Your task to perform on an android device: add a contact Image 0: 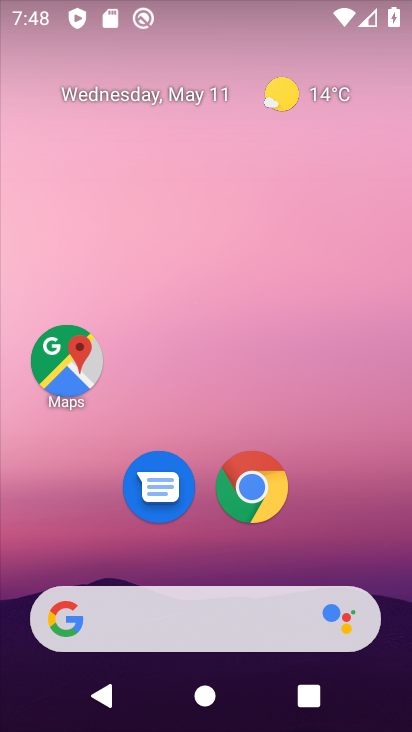
Step 0: drag from (281, 583) to (334, 216)
Your task to perform on an android device: add a contact Image 1: 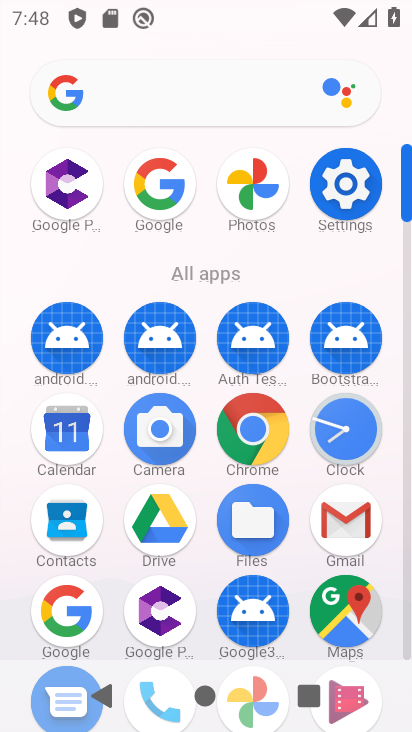
Step 1: click (70, 532)
Your task to perform on an android device: add a contact Image 2: 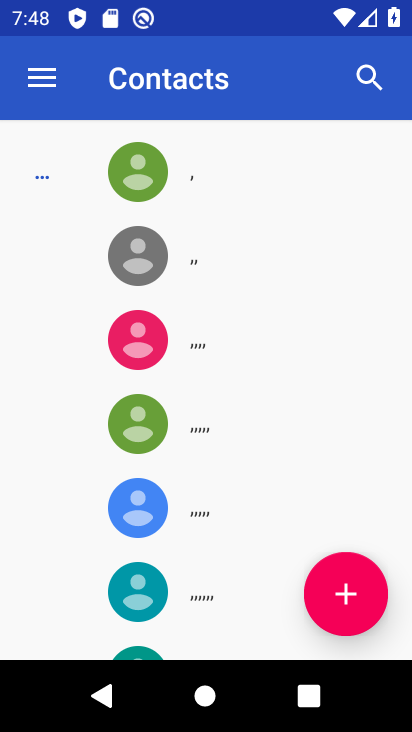
Step 2: click (346, 604)
Your task to perform on an android device: add a contact Image 3: 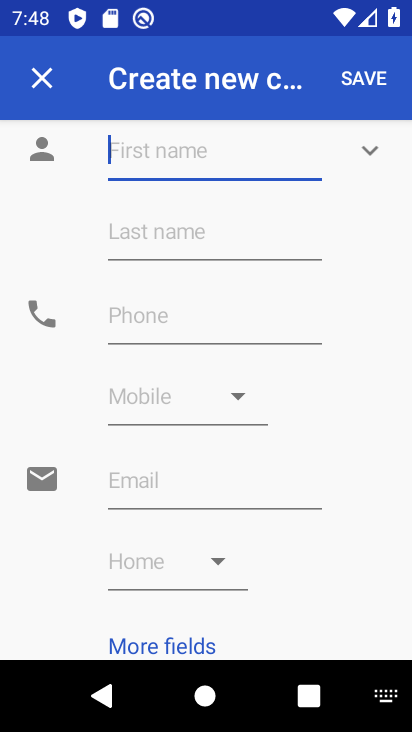
Step 3: click (166, 163)
Your task to perform on an android device: add a contact Image 4: 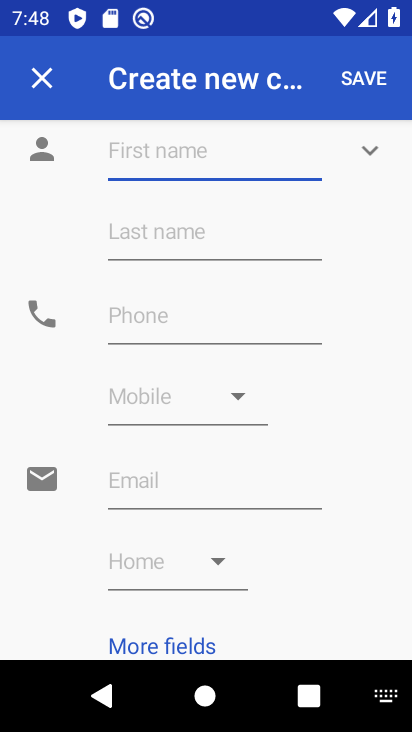
Step 4: type "rajjjjj"
Your task to perform on an android device: add a contact Image 5: 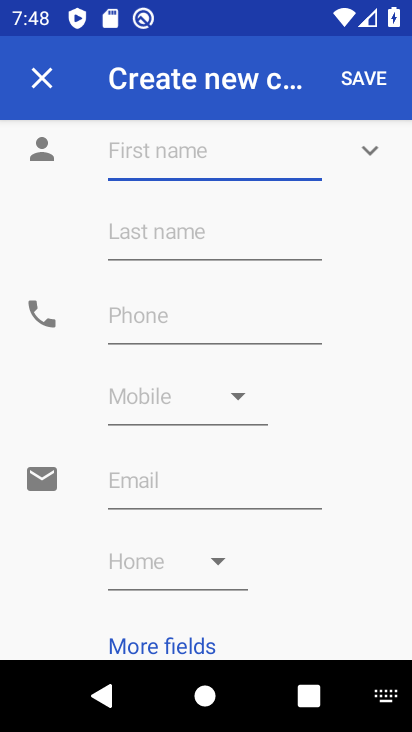
Step 5: click (203, 244)
Your task to perform on an android device: add a contact Image 6: 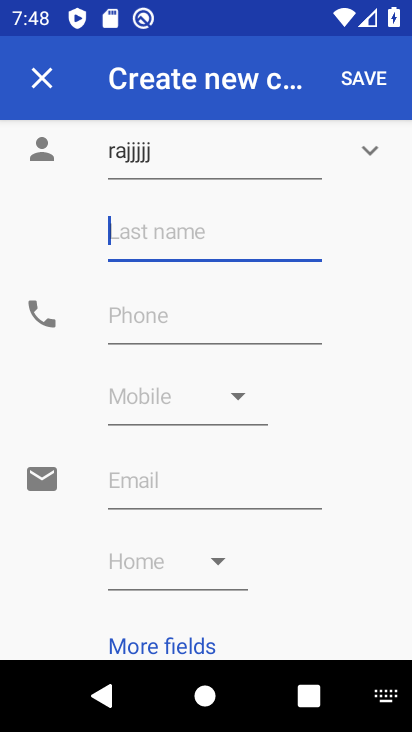
Step 6: click (203, 234)
Your task to perform on an android device: add a contact Image 7: 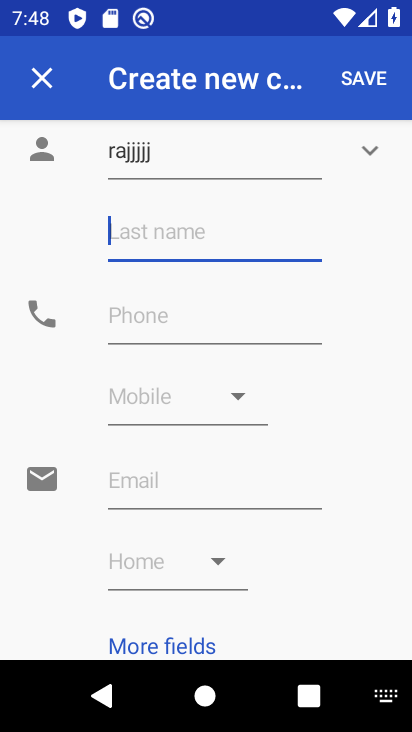
Step 7: type "dhi"
Your task to perform on an android device: add a contact Image 8: 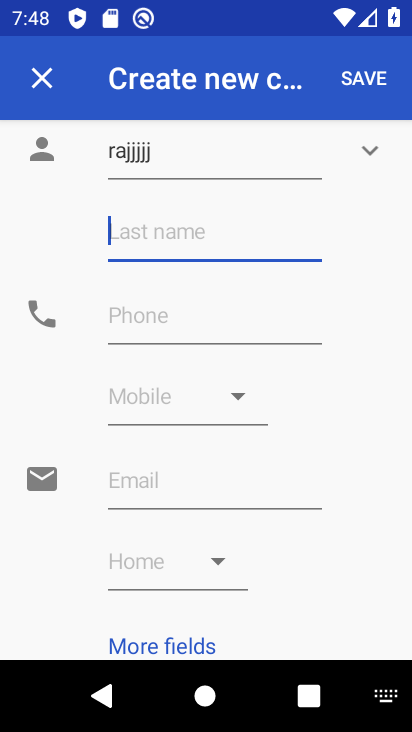
Step 8: click (168, 327)
Your task to perform on an android device: add a contact Image 9: 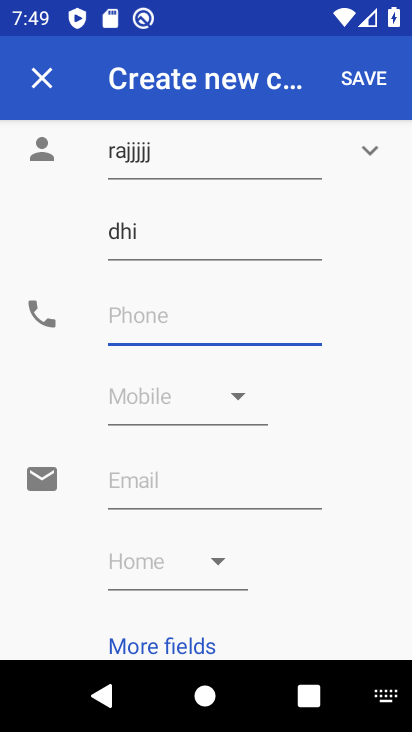
Step 9: type "7878787876"
Your task to perform on an android device: add a contact Image 10: 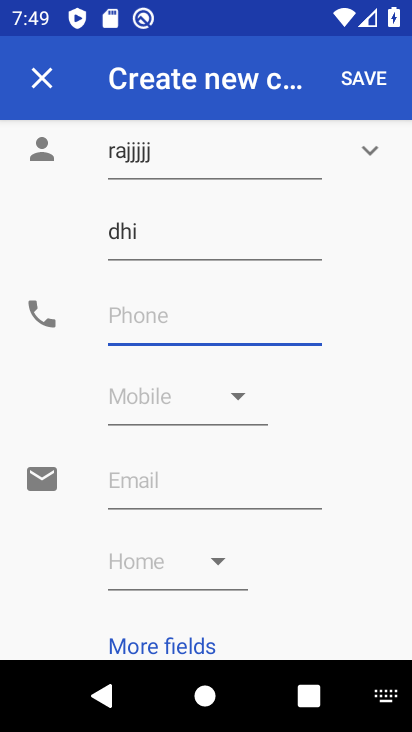
Step 10: click (227, 395)
Your task to perform on an android device: add a contact Image 11: 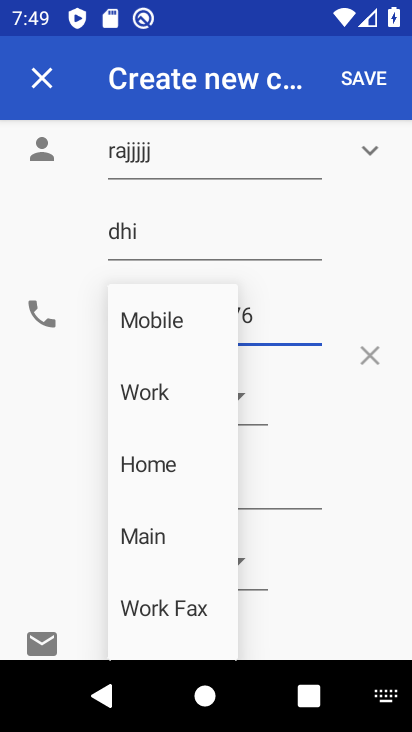
Step 11: click (154, 329)
Your task to perform on an android device: add a contact Image 12: 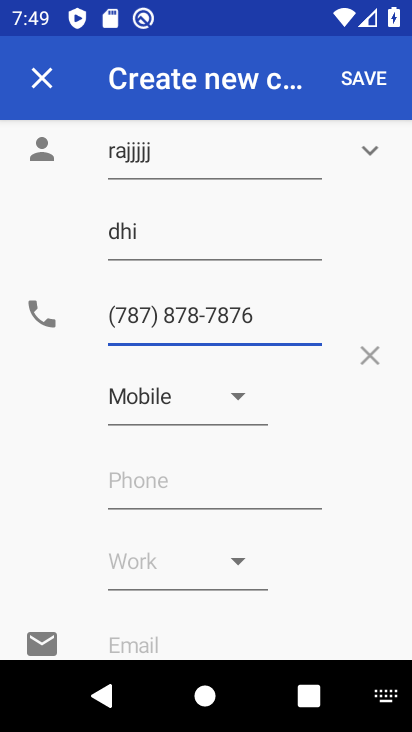
Step 12: task complete